Your task to perform on an android device: What's the weather going to be tomorrow? Image 0: 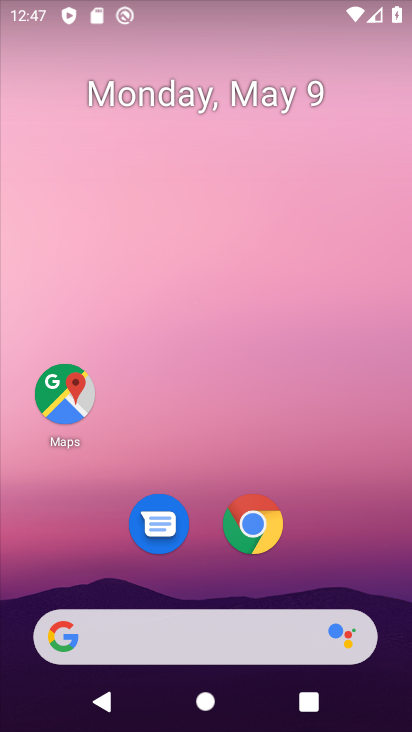
Step 0: click (235, 640)
Your task to perform on an android device: What's the weather going to be tomorrow? Image 1: 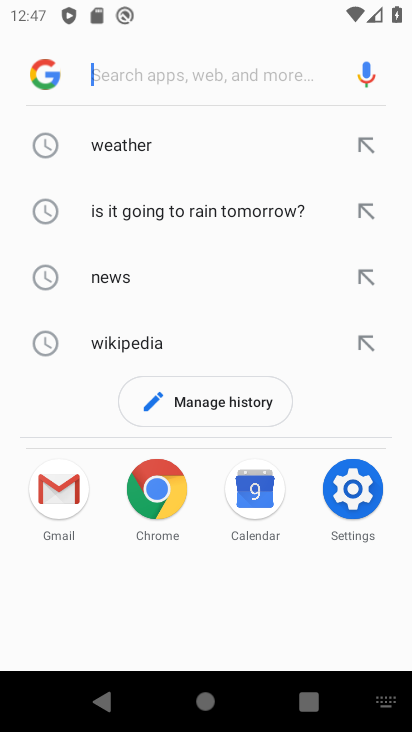
Step 1: click (113, 141)
Your task to perform on an android device: What's the weather going to be tomorrow? Image 2: 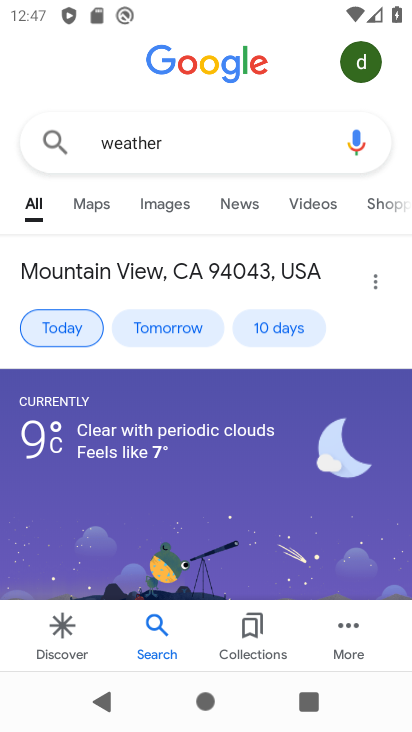
Step 2: click (156, 325)
Your task to perform on an android device: What's the weather going to be tomorrow? Image 3: 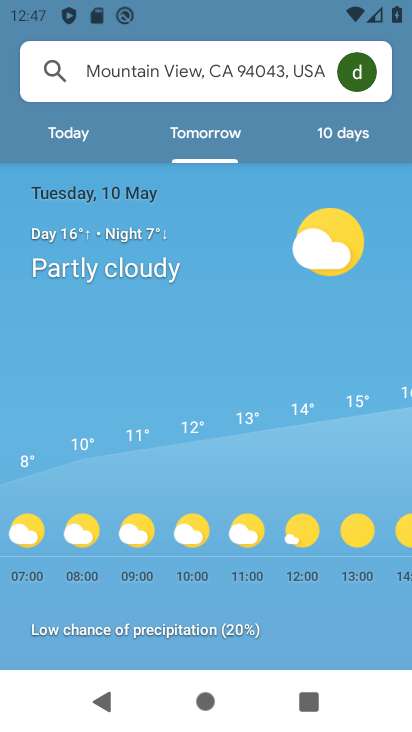
Step 3: task complete